Your task to perform on an android device: Search for pizza restaurants on Maps Image 0: 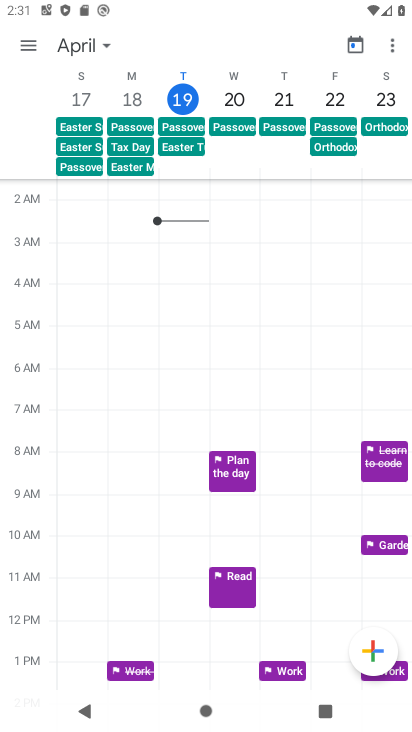
Step 0: press home button
Your task to perform on an android device: Search for pizza restaurants on Maps Image 1: 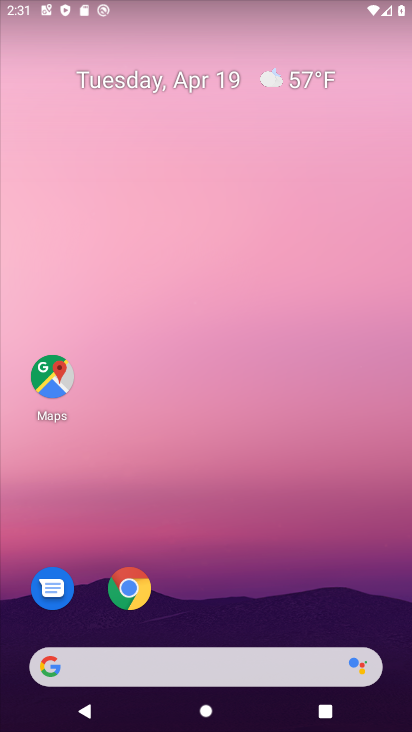
Step 1: click (49, 381)
Your task to perform on an android device: Search for pizza restaurants on Maps Image 2: 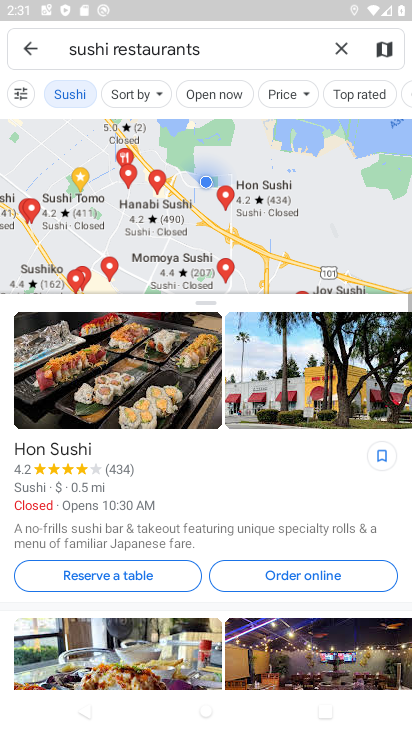
Step 2: click (336, 45)
Your task to perform on an android device: Search for pizza restaurants on Maps Image 3: 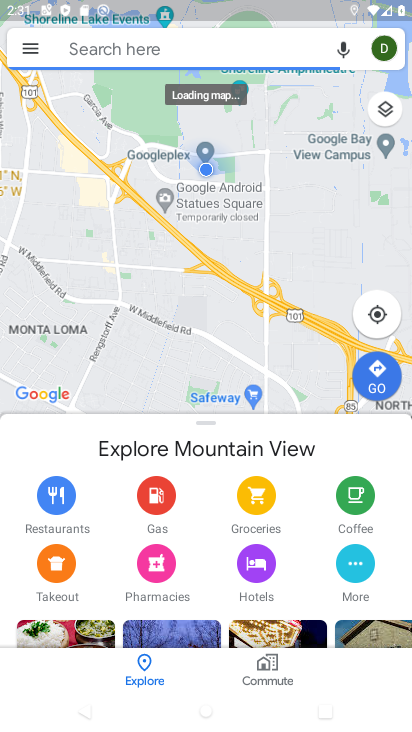
Step 3: click (279, 41)
Your task to perform on an android device: Search for pizza restaurants on Maps Image 4: 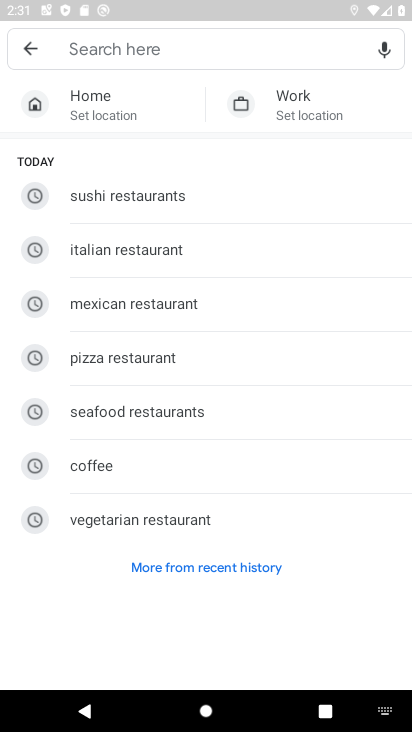
Step 4: click (168, 350)
Your task to perform on an android device: Search for pizza restaurants on Maps Image 5: 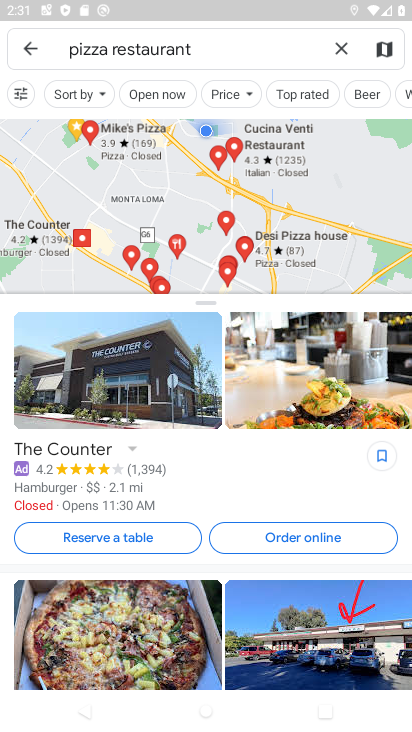
Step 5: task complete